Your task to perform on an android device: Open Yahoo.com Image 0: 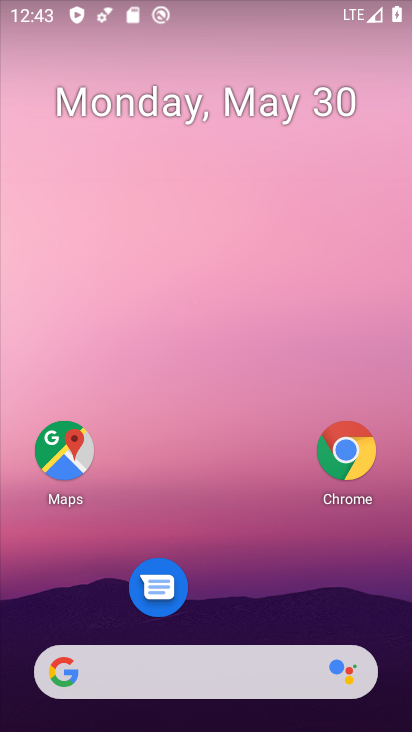
Step 0: click (355, 450)
Your task to perform on an android device: Open Yahoo.com Image 1: 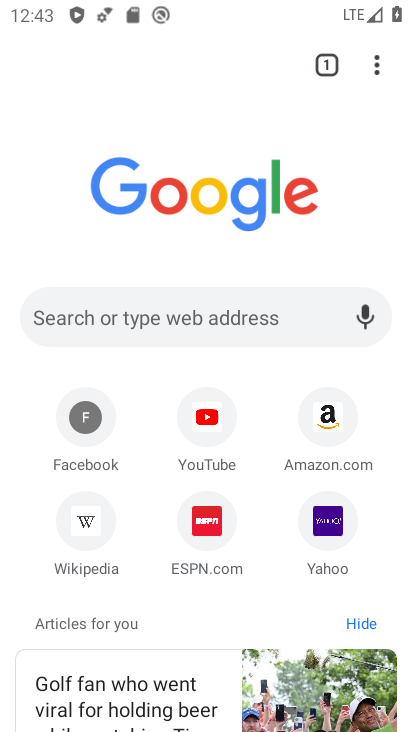
Step 1: click (333, 526)
Your task to perform on an android device: Open Yahoo.com Image 2: 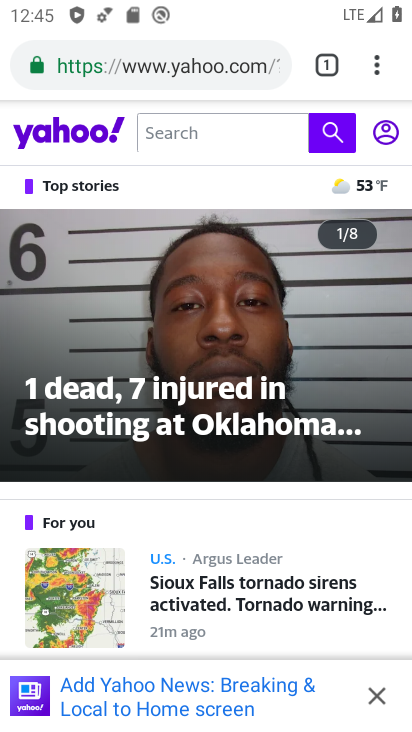
Step 2: task complete